Your task to perform on an android device: turn on data saver in the chrome app Image 0: 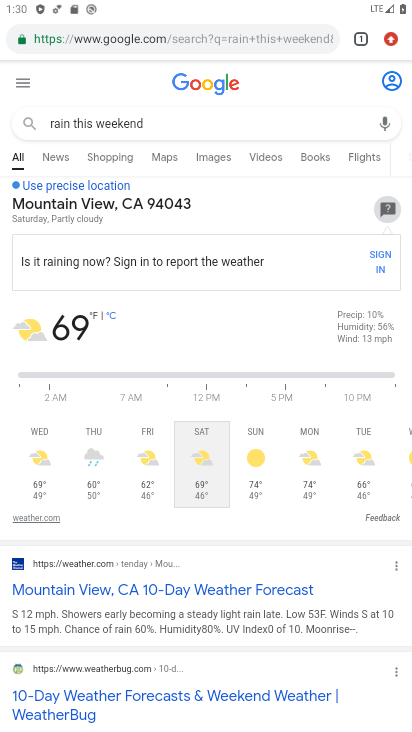
Step 0: click (385, 37)
Your task to perform on an android device: turn on data saver in the chrome app Image 1: 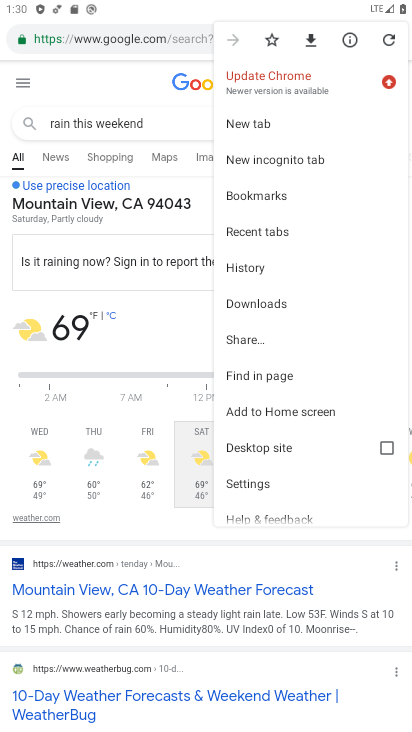
Step 1: click (283, 486)
Your task to perform on an android device: turn on data saver in the chrome app Image 2: 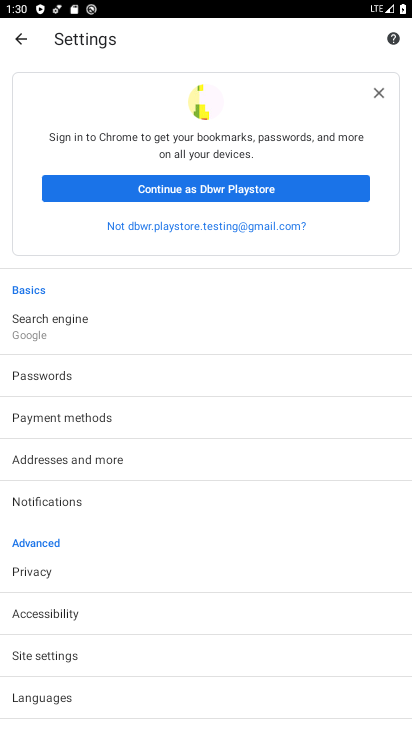
Step 2: click (89, 699)
Your task to perform on an android device: turn on data saver in the chrome app Image 3: 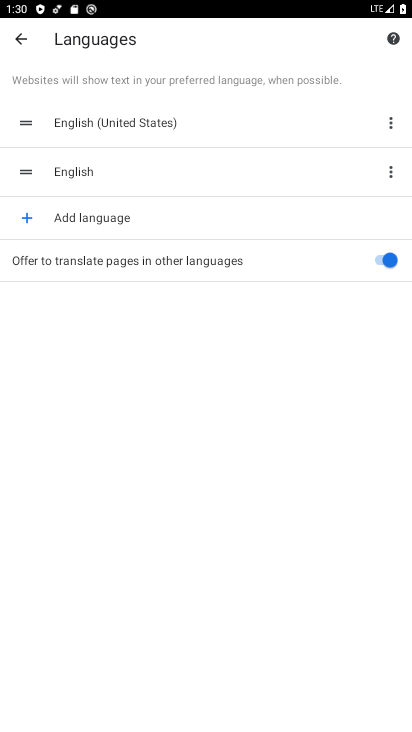
Step 3: press back button
Your task to perform on an android device: turn on data saver in the chrome app Image 4: 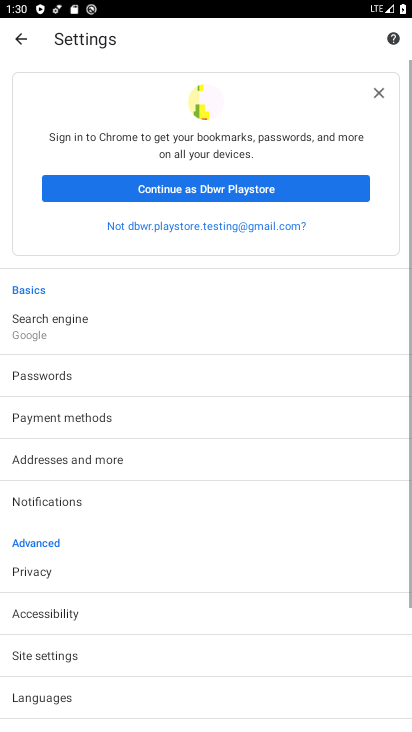
Step 4: drag from (262, 653) to (249, 238)
Your task to perform on an android device: turn on data saver in the chrome app Image 5: 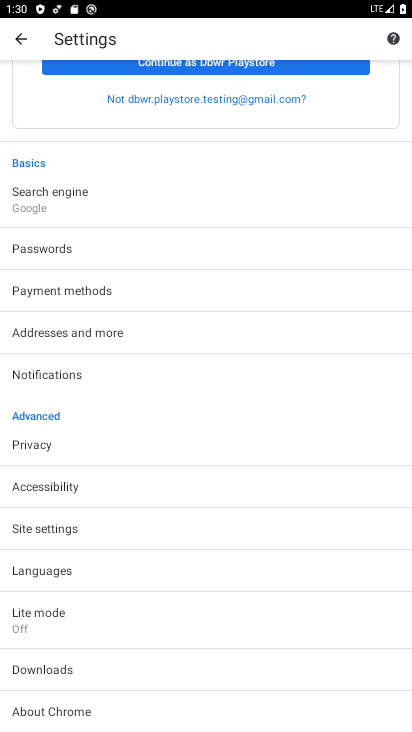
Step 5: click (75, 623)
Your task to perform on an android device: turn on data saver in the chrome app Image 6: 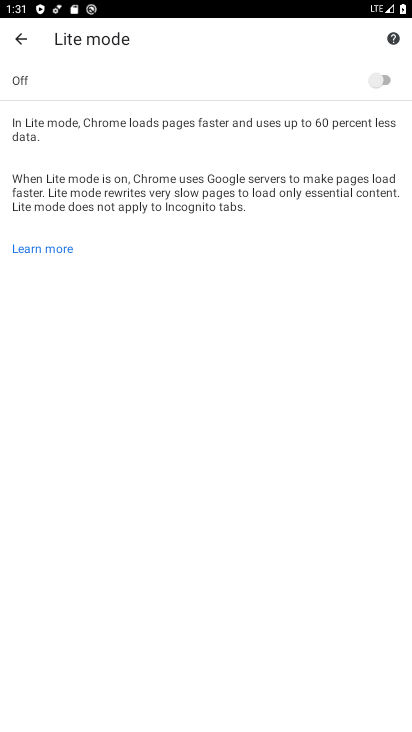
Step 6: click (386, 74)
Your task to perform on an android device: turn on data saver in the chrome app Image 7: 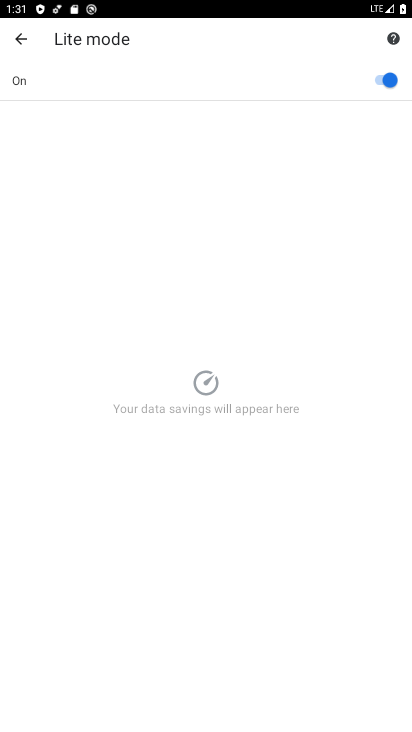
Step 7: task complete